Your task to perform on an android device: Is it going to rain this weekend? Image 0: 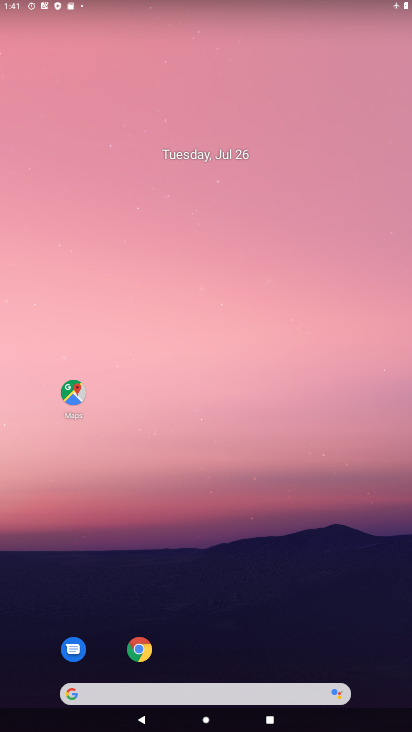
Step 0: drag from (276, 615) to (211, 36)
Your task to perform on an android device: Is it going to rain this weekend? Image 1: 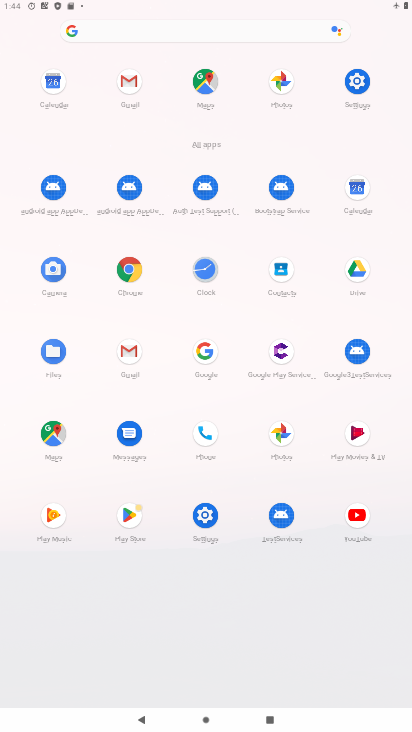
Step 1: click (213, 353)
Your task to perform on an android device: Is it going to rain this weekend? Image 2: 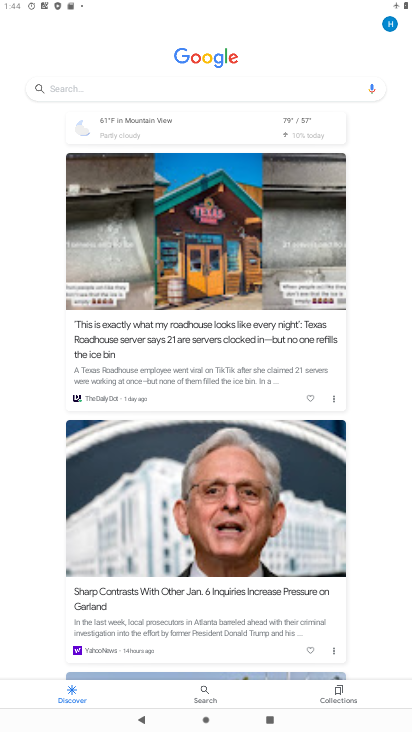
Step 2: type "Is it going to rain this weekend?"
Your task to perform on an android device: Is it going to rain this weekend? Image 3: 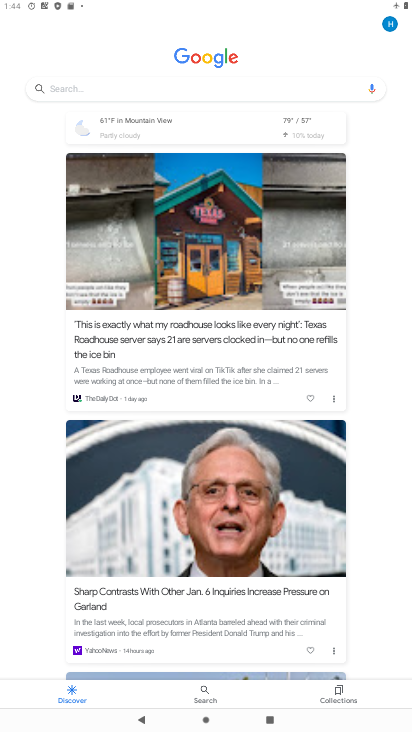
Step 3: click (111, 90)
Your task to perform on an android device: Is it going to rain this weekend? Image 4: 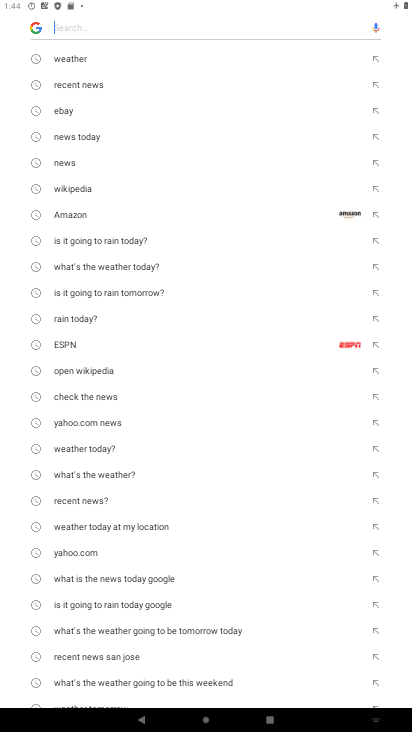
Step 4: type "Is it going to rain this weekend?"
Your task to perform on an android device: Is it going to rain this weekend? Image 5: 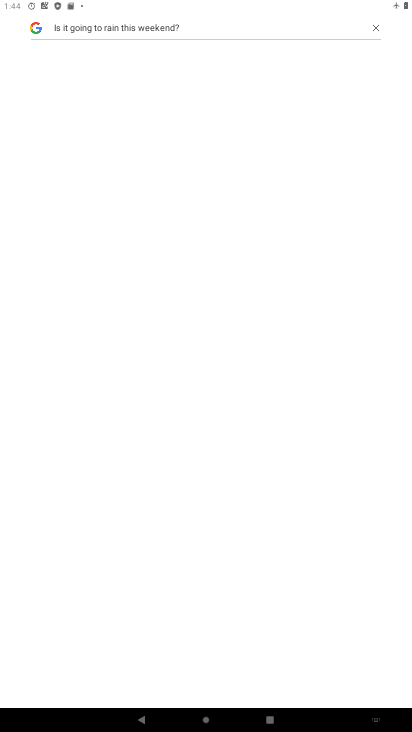
Step 5: task complete